Your task to perform on an android device: Open display settings Image 0: 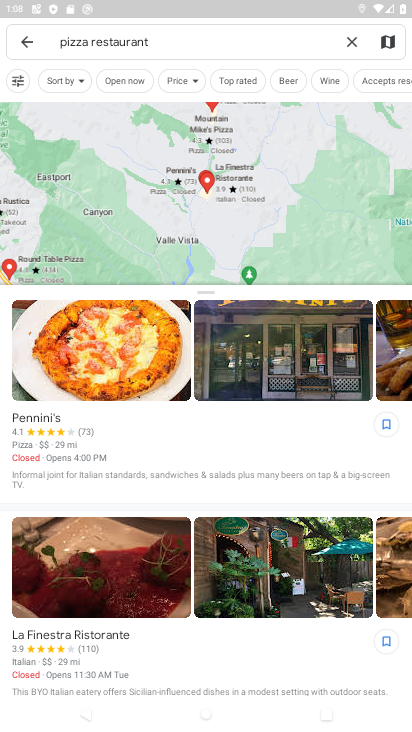
Step 0: press home button
Your task to perform on an android device: Open display settings Image 1: 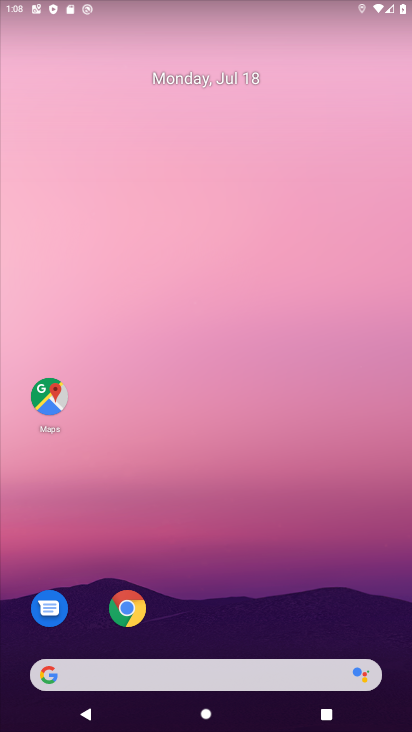
Step 1: drag from (392, 598) to (283, 70)
Your task to perform on an android device: Open display settings Image 2: 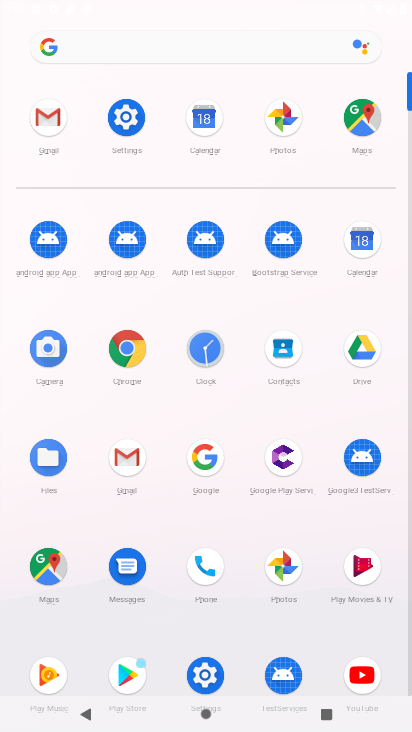
Step 2: click (128, 117)
Your task to perform on an android device: Open display settings Image 3: 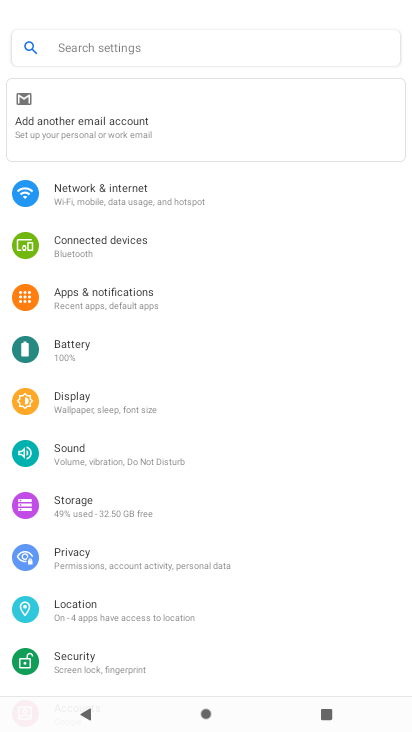
Step 3: click (126, 402)
Your task to perform on an android device: Open display settings Image 4: 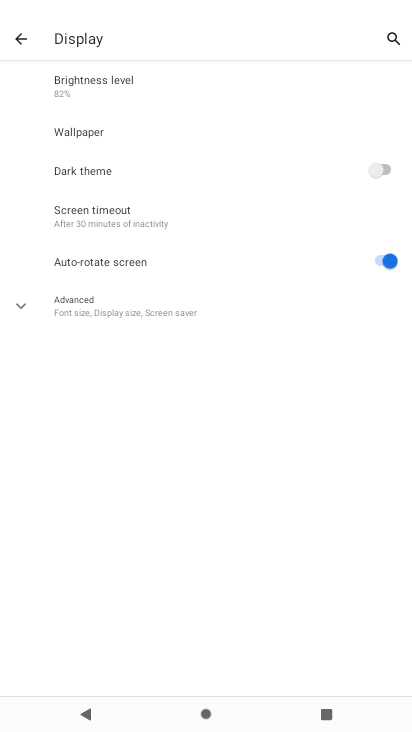
Step 4: task complete